Your task to perform on an android device: uninstall "Yahoo Mail" Image 0: 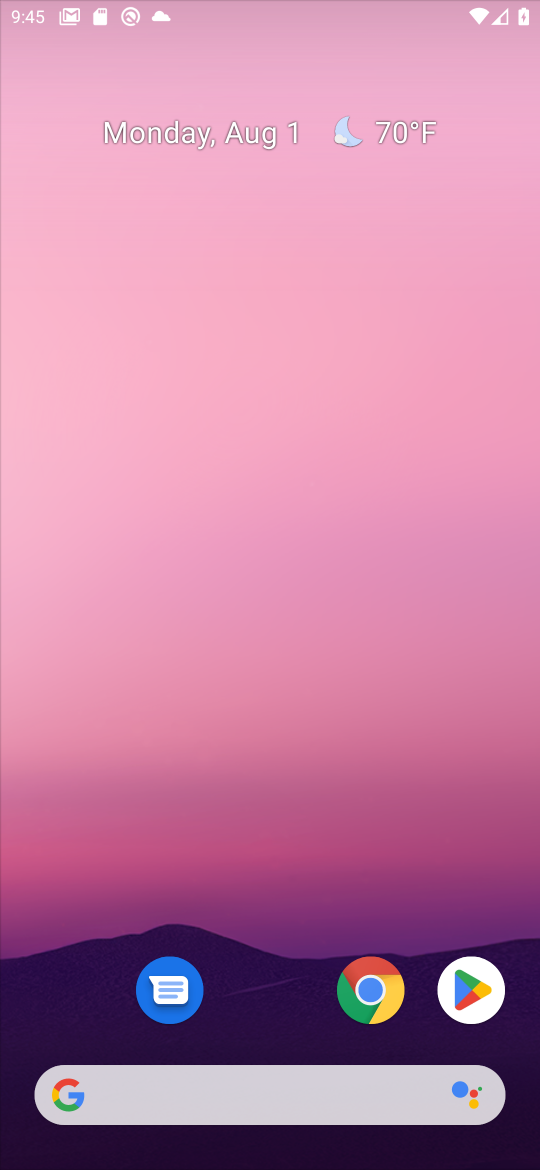
Step 0: press home button
Your task to perform on an android device: uninstall "Yahoo Mail" Image 1: 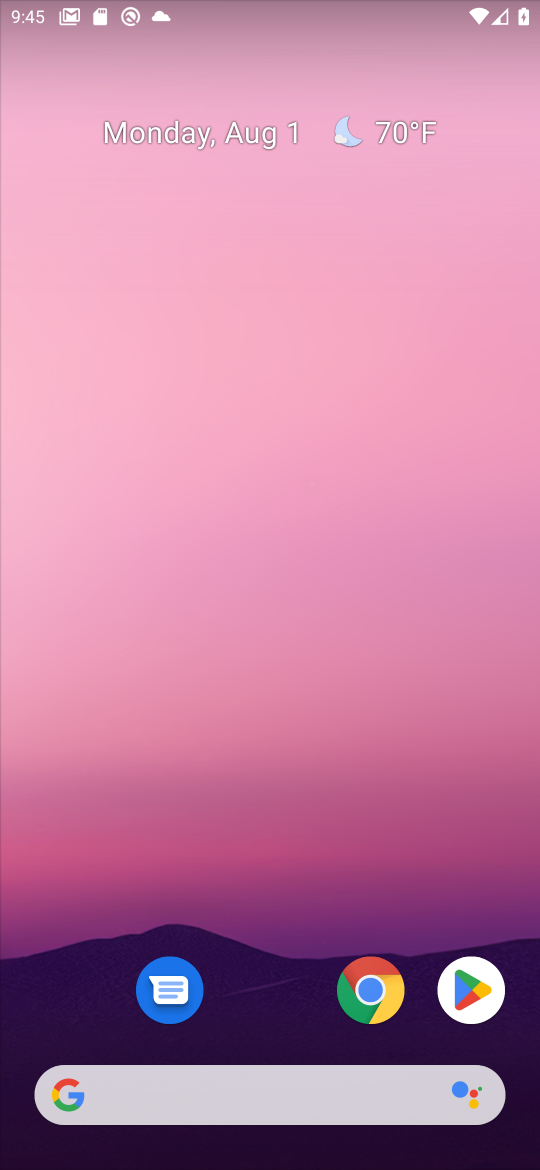
Step 1: click (472, 980)
Your task to perform on an android device: uninstall "Yahoo Mail" Image 2: 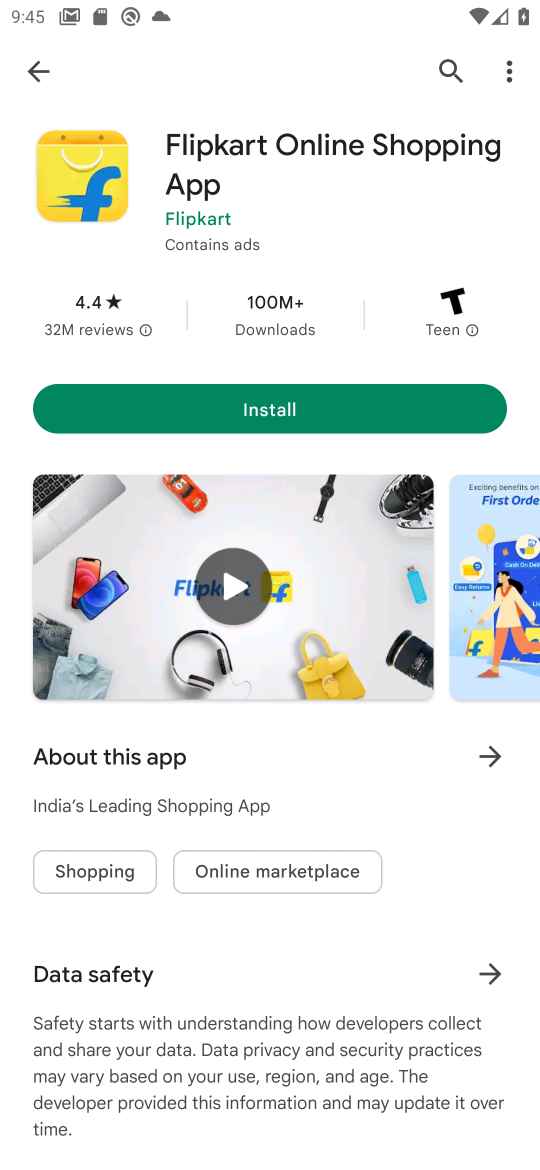
Step 2: click (446, 69)
Your task to perform on an android device: uninstall "Yahoo Mail" Image 3: 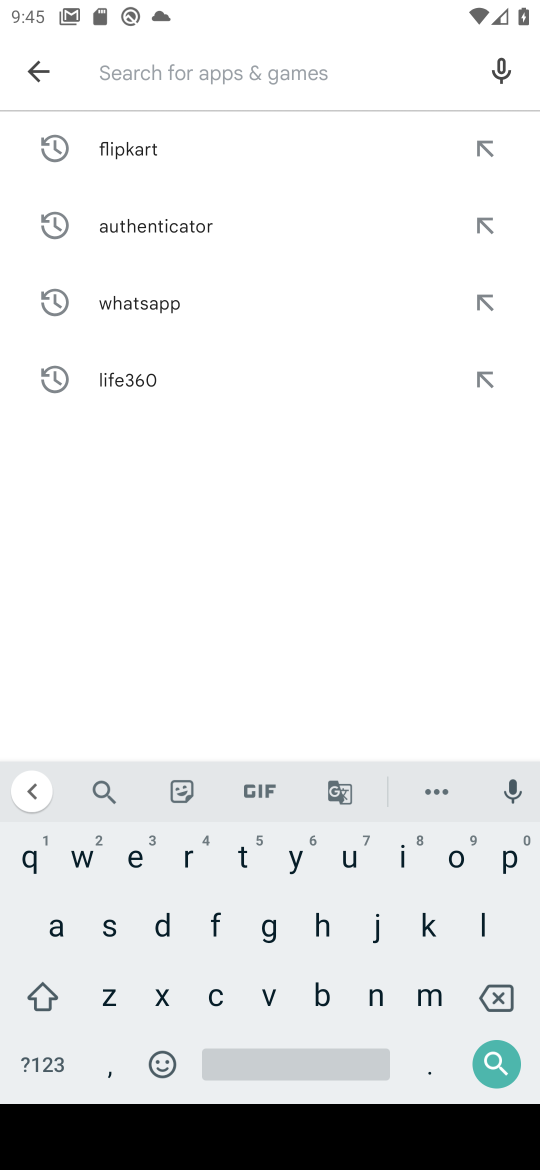
Step 3: click (288, 850)
Your task to perform on an android device: uninstall "Yahoo Mail" Image 4: 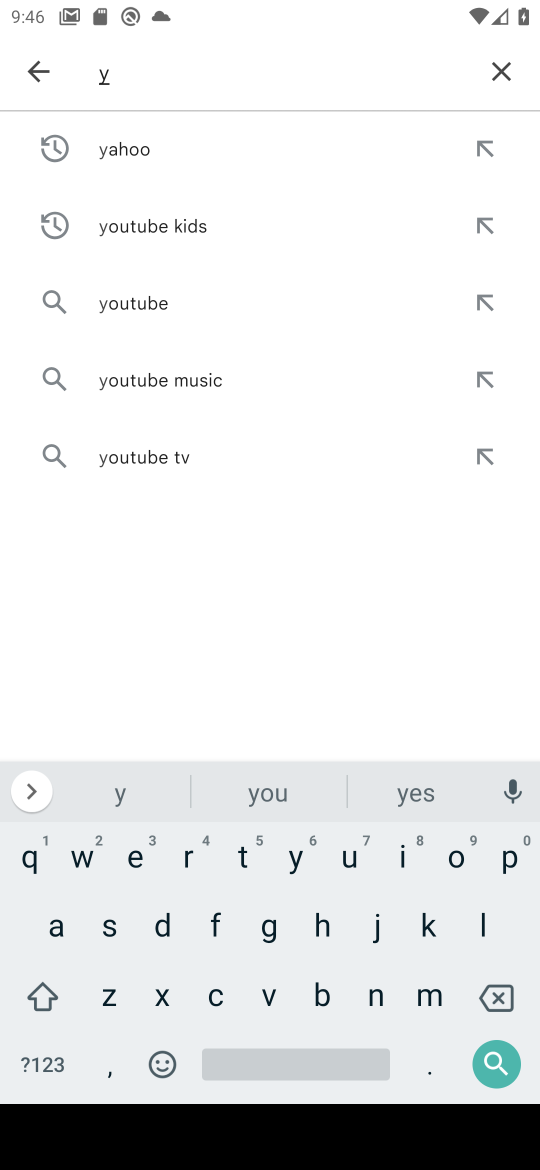
Step 4: click (50, 923)
Your task to perform on an android device: uninstall "Yahoo Mail" Image 5: 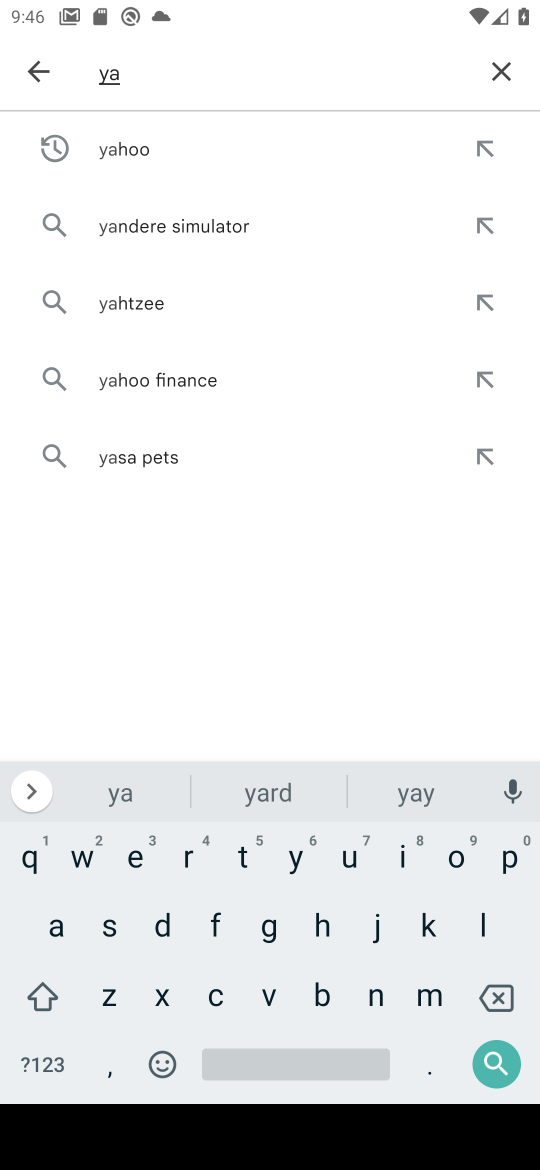
Step 5: click (173, 147)
Your task to perform on an android device: uninstall "Yahoo Mail" Image 6: 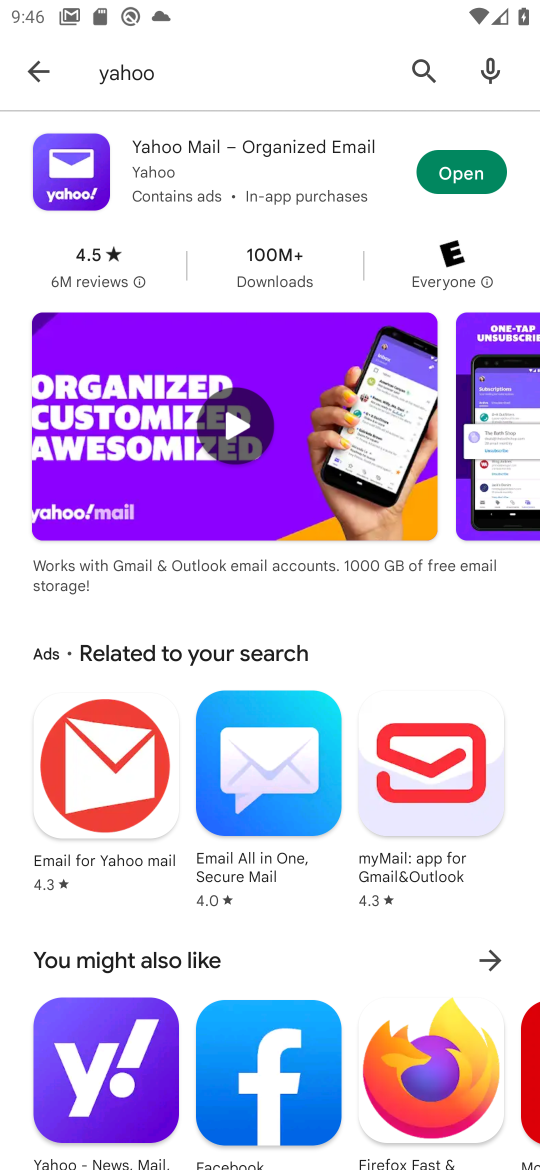
Step 6: click (171, 143)
Your task to perform on an android device: uninstall "Yahoo Mail" Image 7: 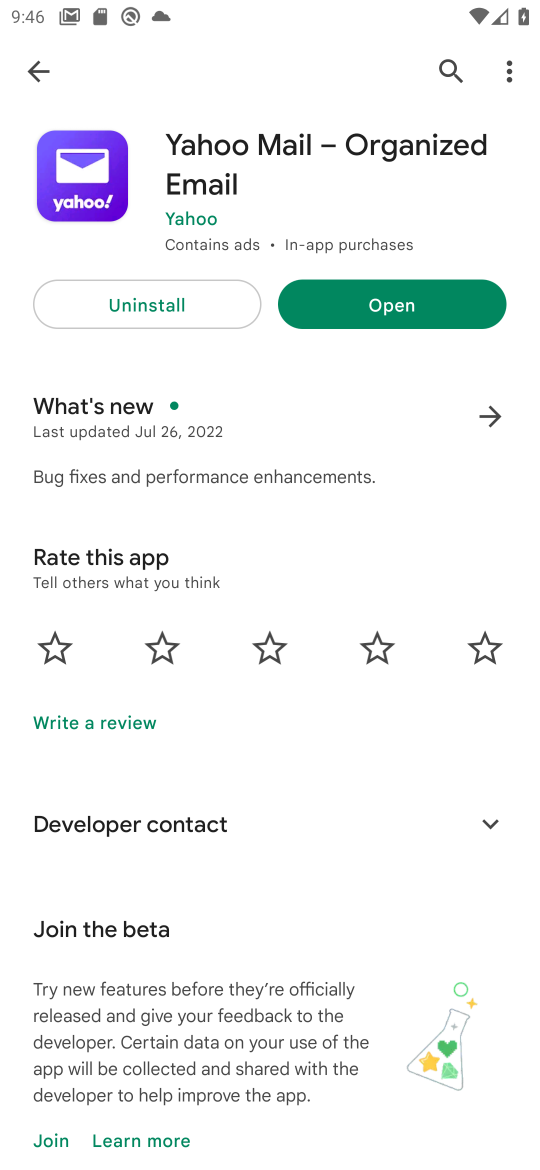
Step 7: click (163, 321)
Your task to perform on an android device: uninstall "Yahoo Mail" Image 8: 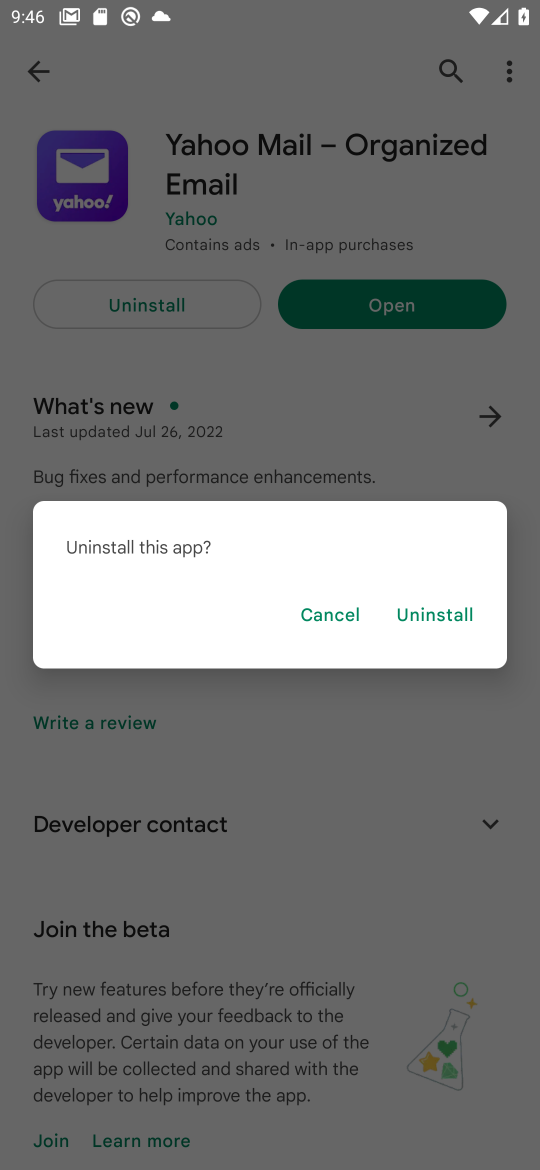
Step 8: click (452, 616)
Your task to perform on an android device: uninstall "Yahoo Mail" Image 9: 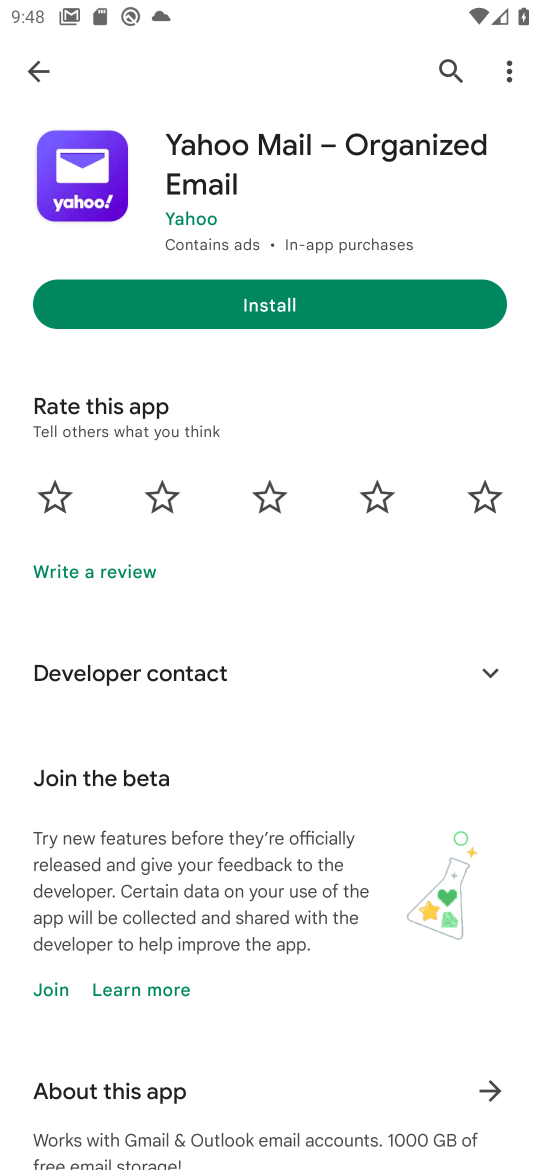
Step 9: task complete